Your task to perform on an android device: turn off sleep mode Image 0: 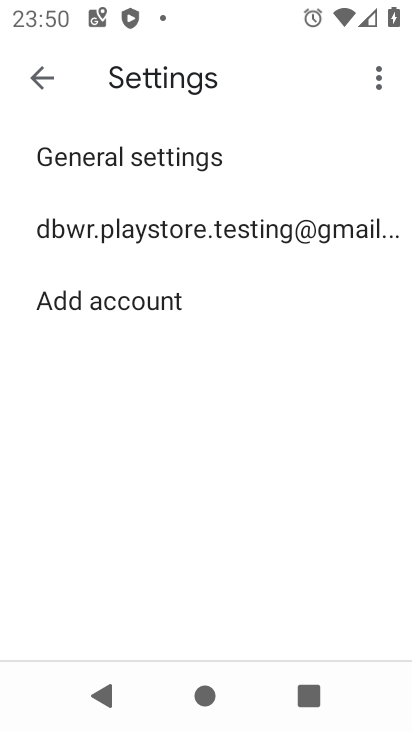
Step 0: press home button
Your task to perform on an android device: turn off sleep mode Image 1: 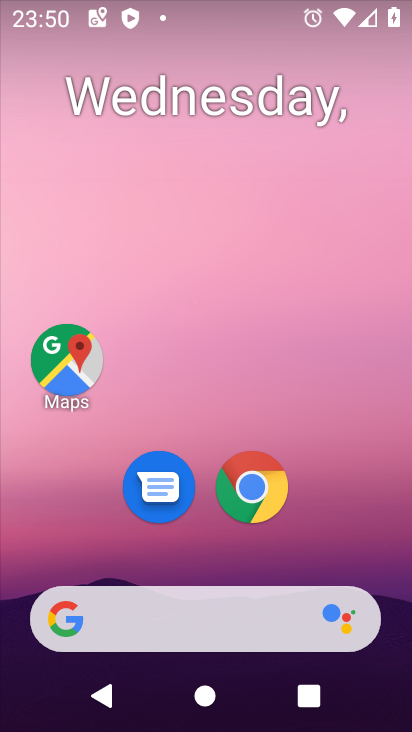
Step 1: drag from (324, 540) to (349, 1)
Your task to perform on an android device: turn off sleep mode Image 2: 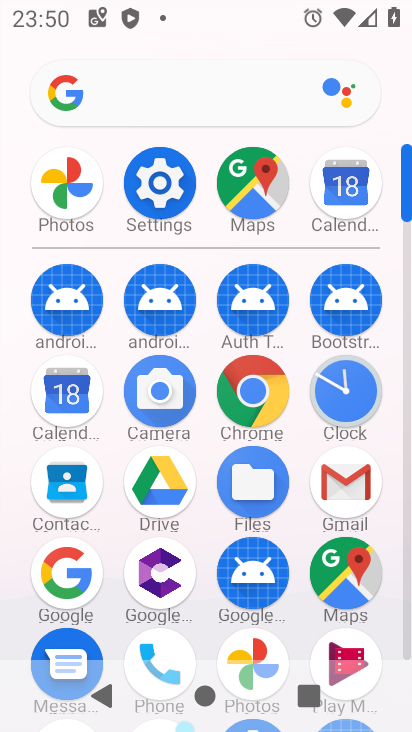
Step 2: click (158, 187)
Your task to perform on an android device: turn off sleep mode Image 3: 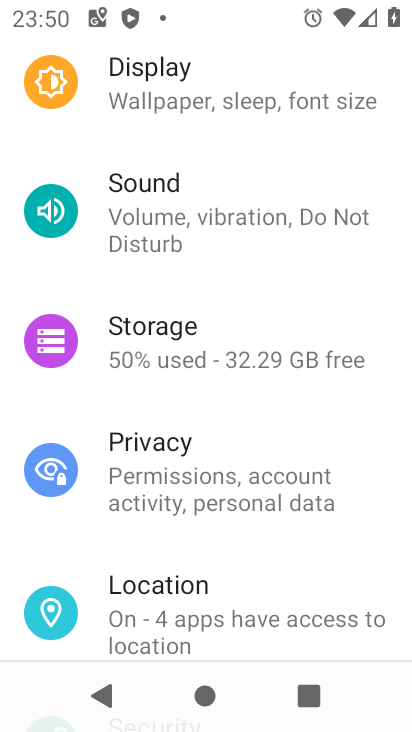
Step 3: click (162, 85)
Your task to perform on an android device: turn off sleep mode Image 4: 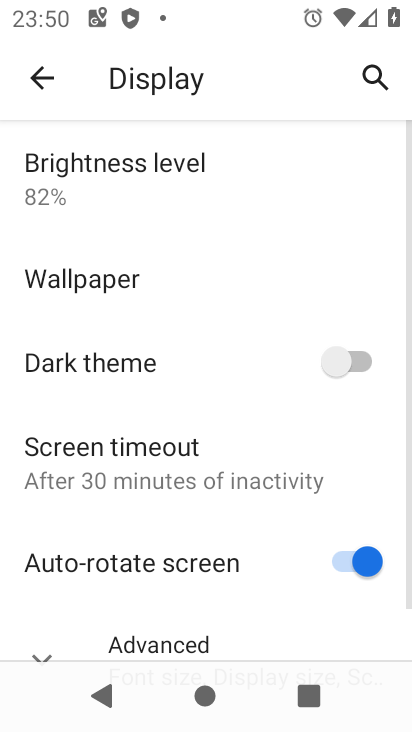
Step 4: drag from (181, 422) to (199, 136)
Your task to perform on an android device: turn off sleep mode Image 5: 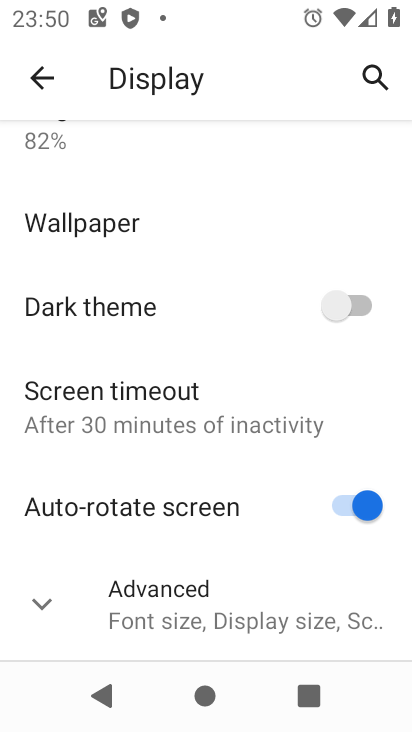
Step 5: click (41, 610)
Your task to perform on an android device: turn off sleep mode Image 6: 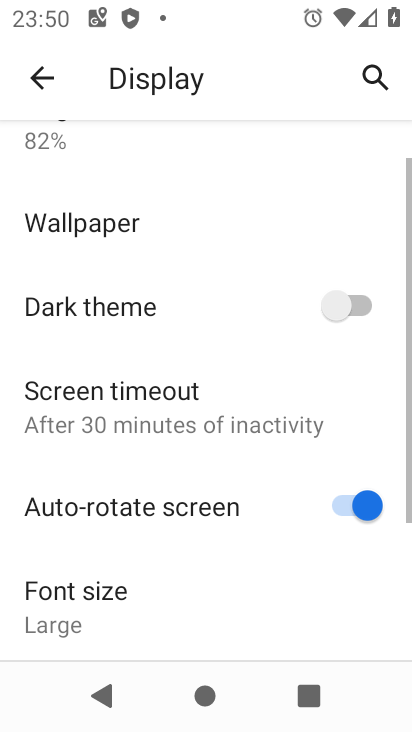
Step 6: task complete